Your task to perform on an android device: open app "Instagram" (install if not already installed) and go to login screen Image 0: 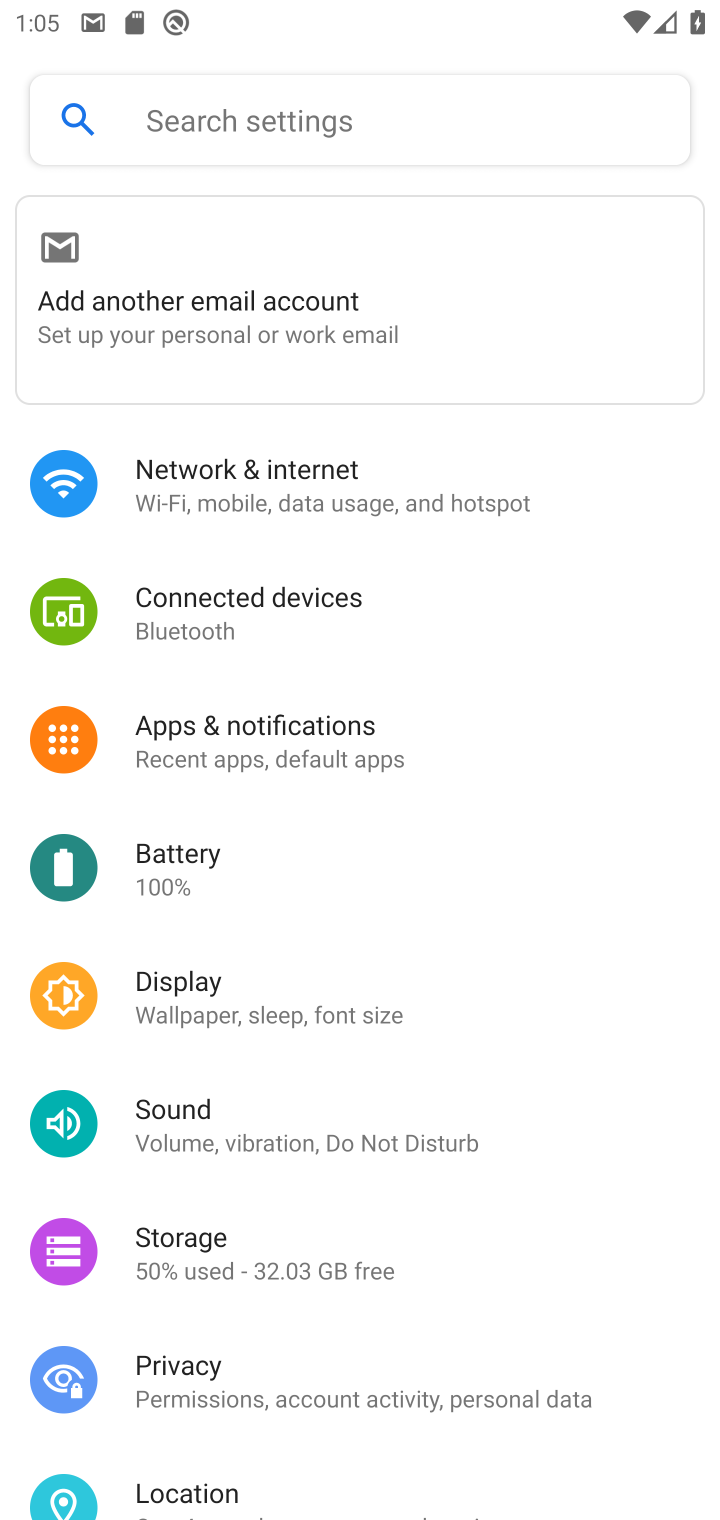
Step 0: press home button
Your task to perform on an android device: open app "Instagram" (install if not already installed) and go to login screen Image 1: 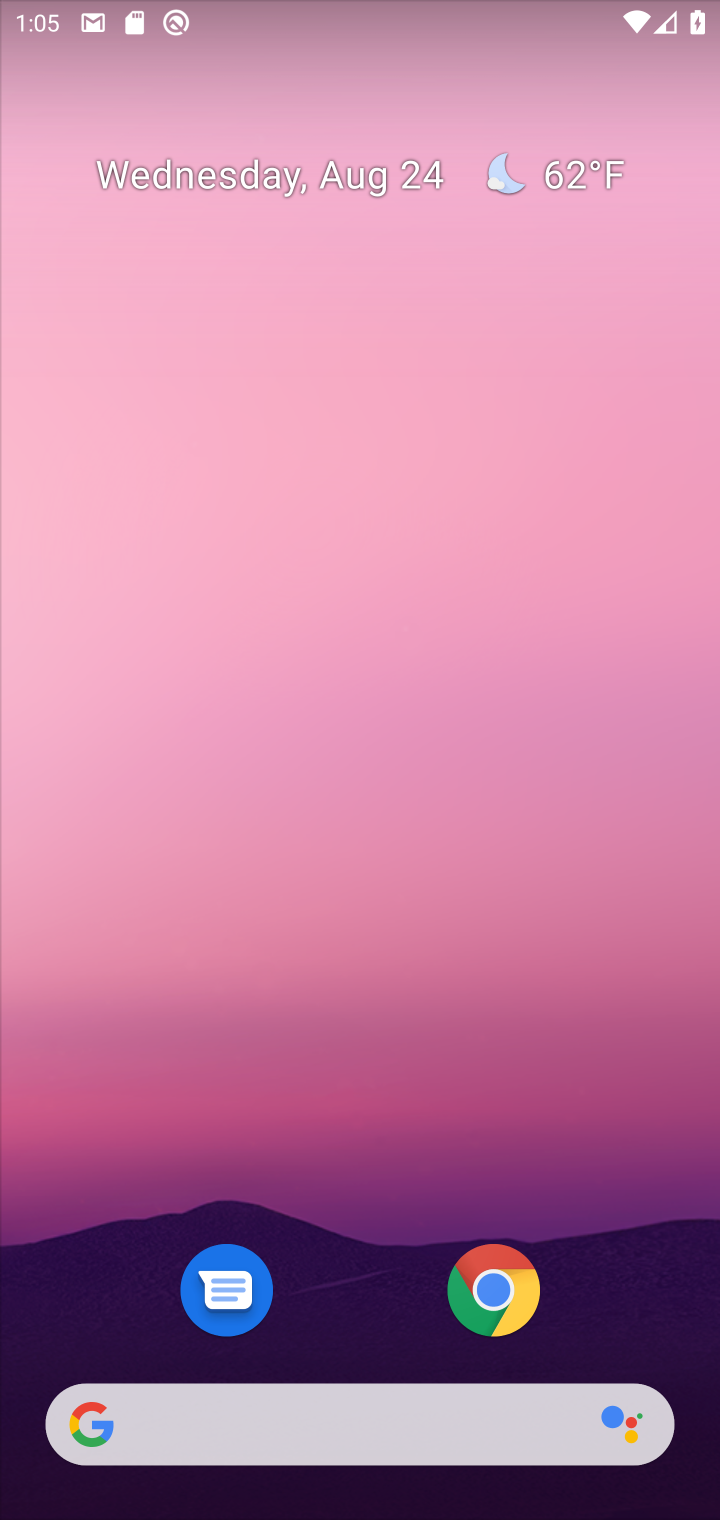
Step 1: click (395, 147)
Your task to perform on an android device: open app "Instagram" (install if not already installed) and go to login screen Image 2: 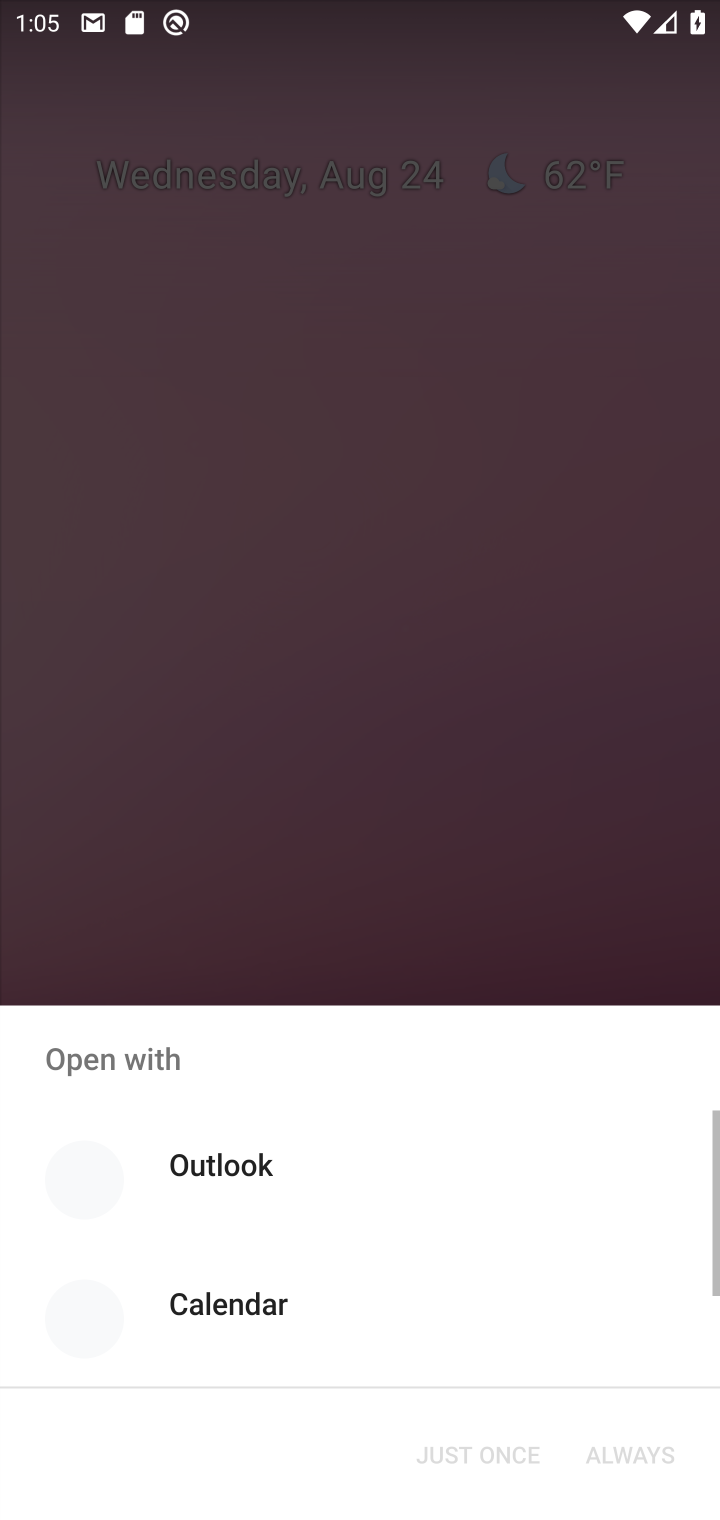
Step 2: drag from (368, 1327) to (388, 206)
Your task to perform on an android device: open app "Instagram" (install if not already installed) and go to login screen Image 3: 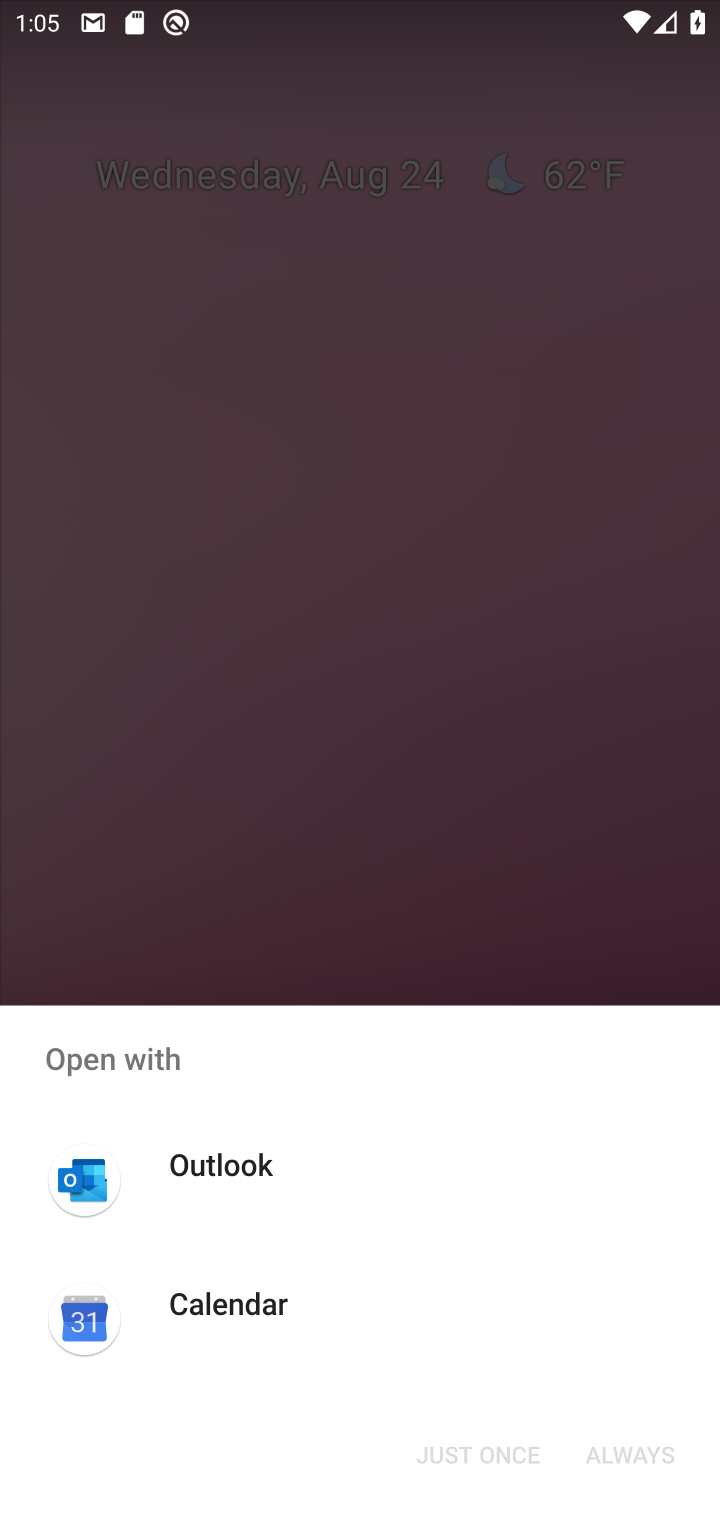
Step 3: click (335, 278)
Your task to perform on an android device: open app "Instagram" (install if not already installed) and go to login screen Image 4: 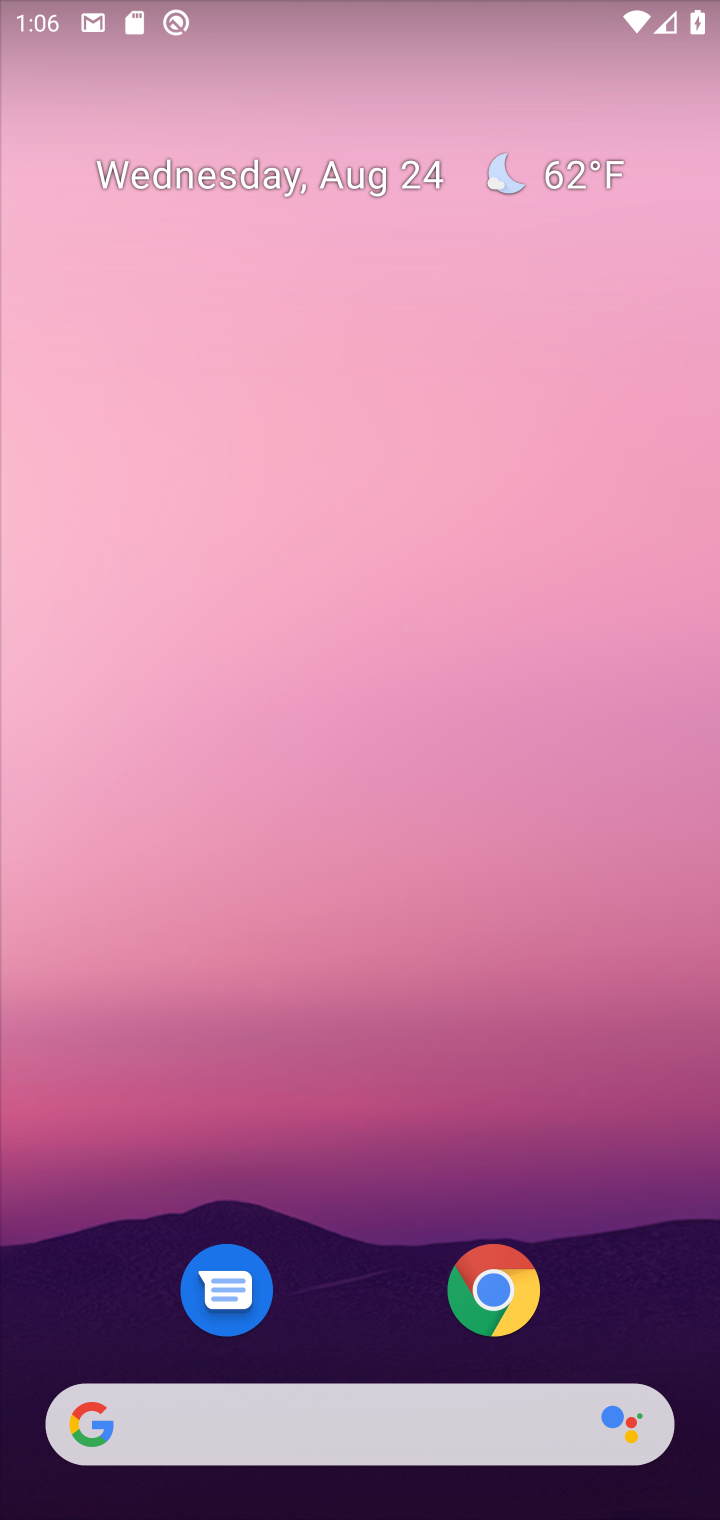
Step 4: drag from (348, 1347) to (365, 340)
Your task to perform on an android device: open app "Instagram" (install if not already installed) and go to login screen Image 5: 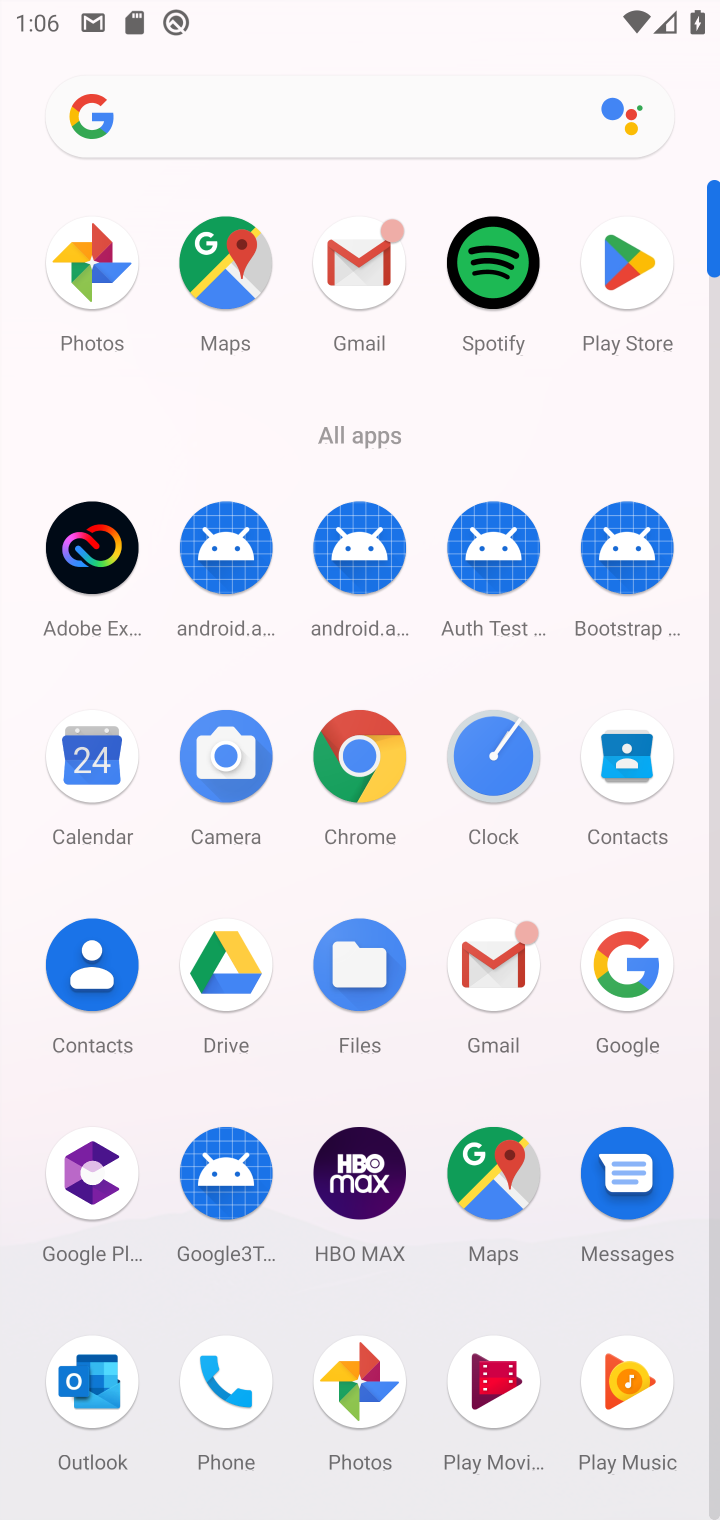
Step 5: click (619, 251)
Your task to perform on an android device: open app "Instagram" (install if not already installed) and go to login screen Image 6: 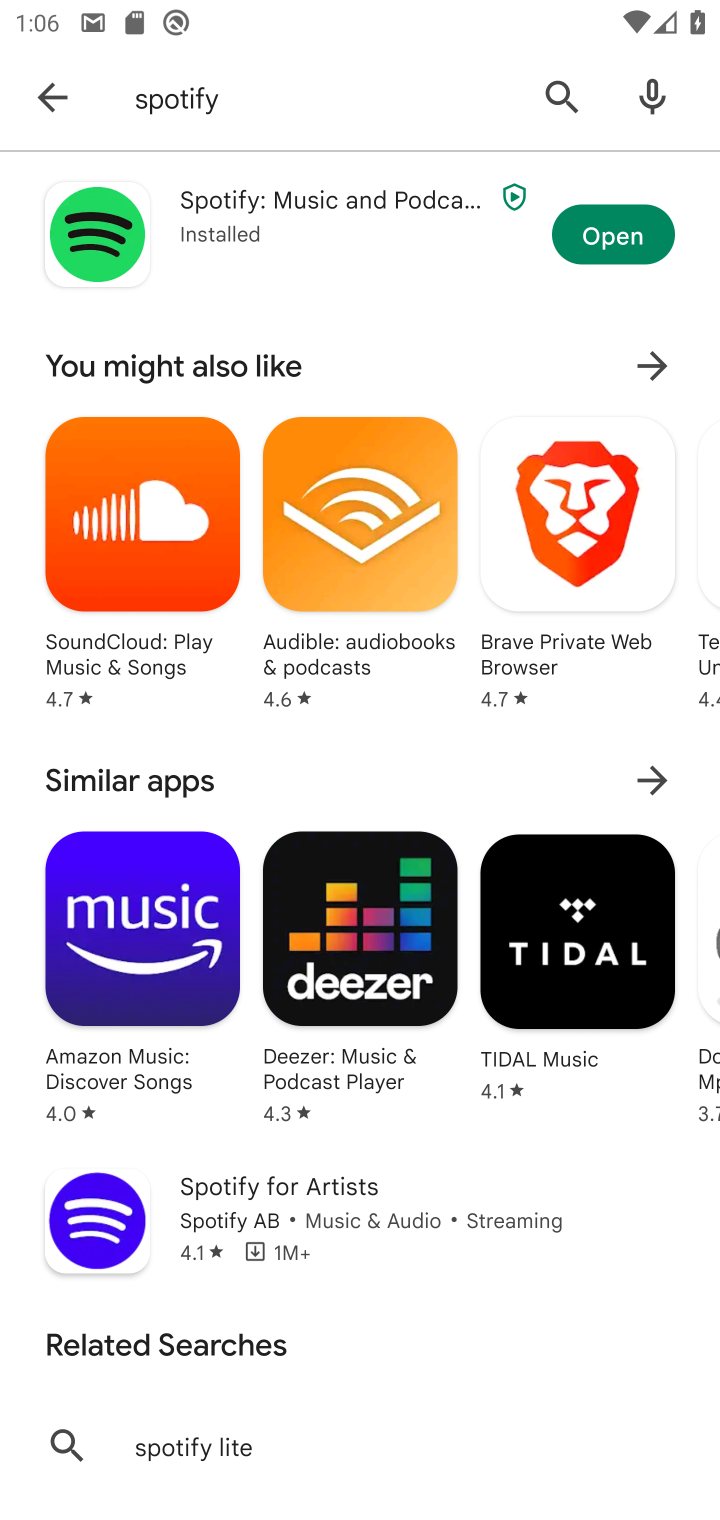
Step 6: click (69, 132)
Your task to perform on an android device: open app "Instagram" (install if not already installed) and go to login screen Image 7: 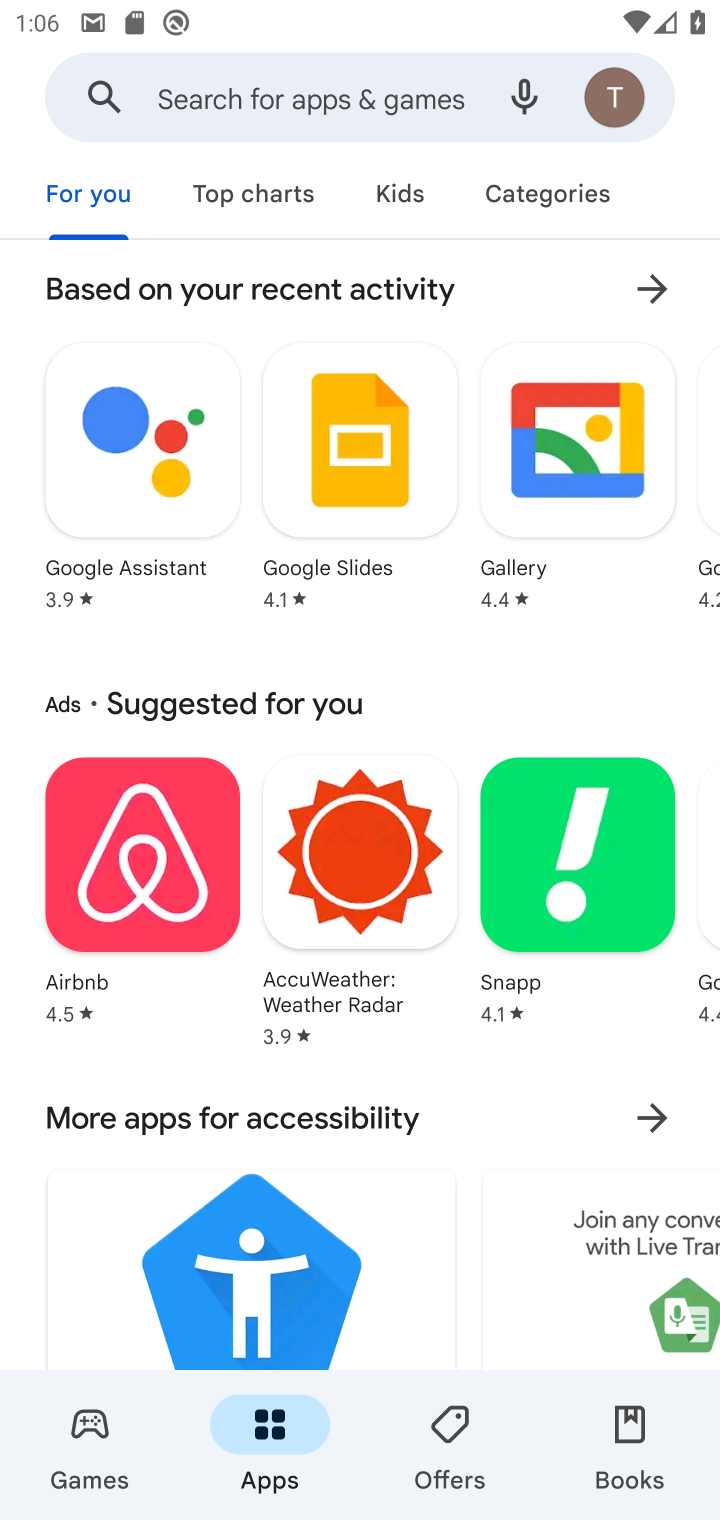
Step 7: click (300, 95)
Your task to perform on an android device: open app "Instagram" (install if not already installed) and go to login screen Image 8: 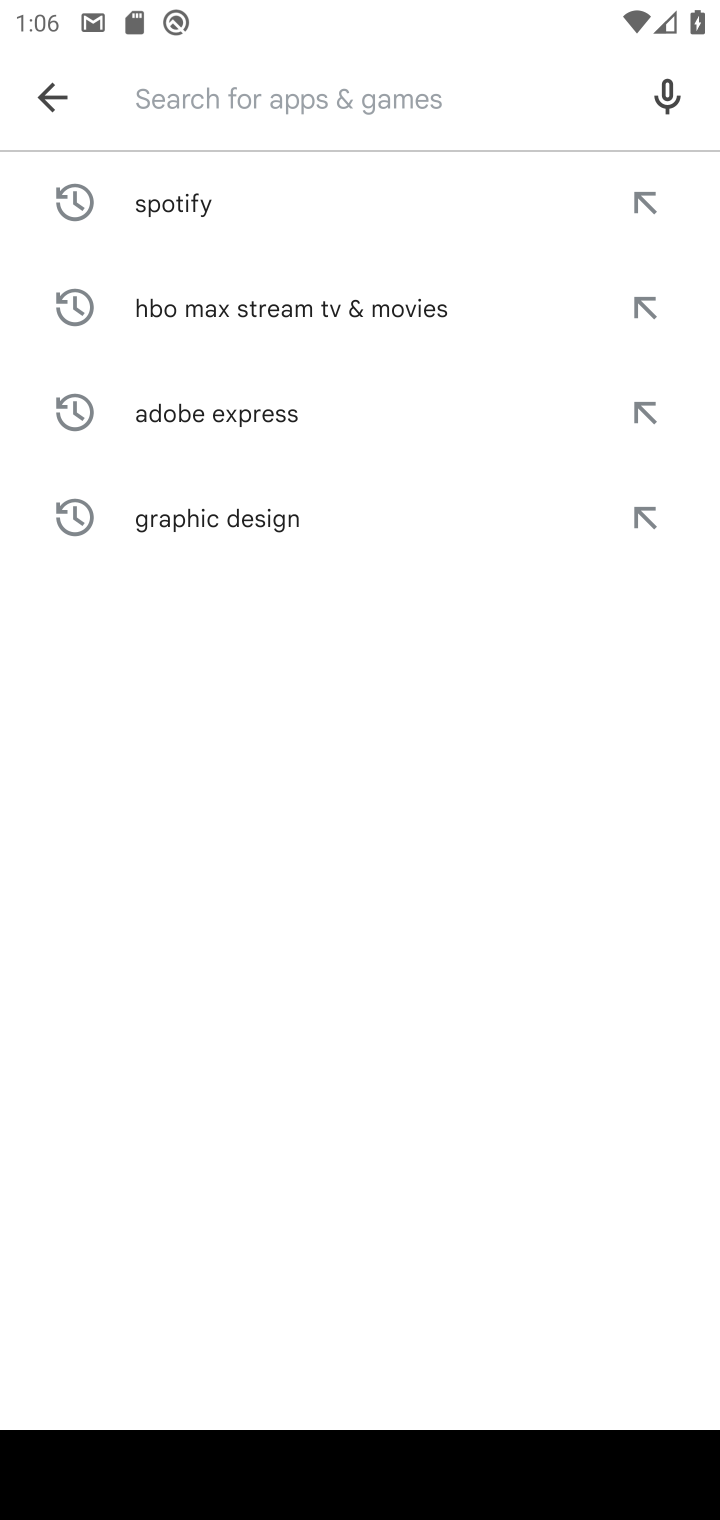
Step 8: type "Instagram"
Your task to perform on an android device: open app "Instagram" (install if not already installed) and go to login screen Image 9: 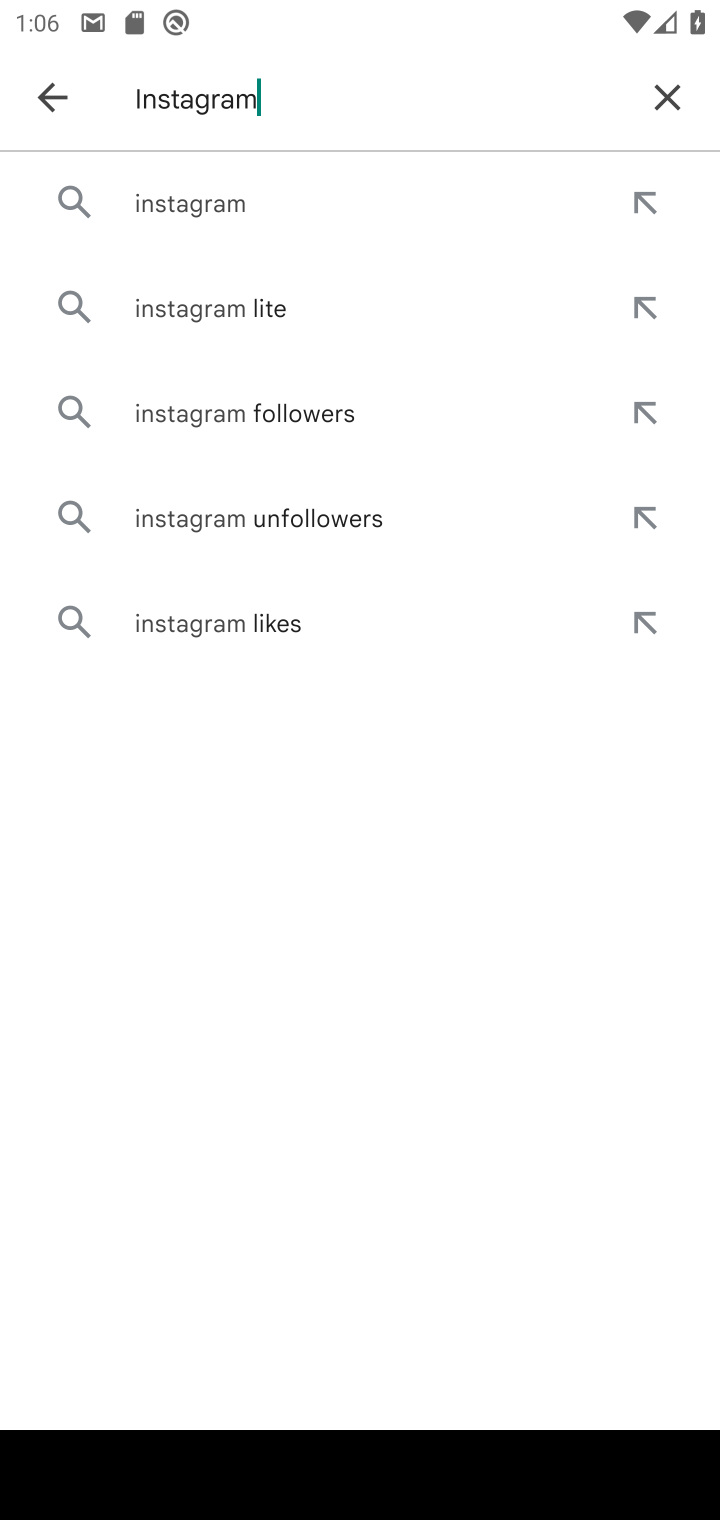
Step 9: click (192, 197)
Your task to perform on an android device: open app "Instagram" (install if not already installed) and go to login screen Image 10: 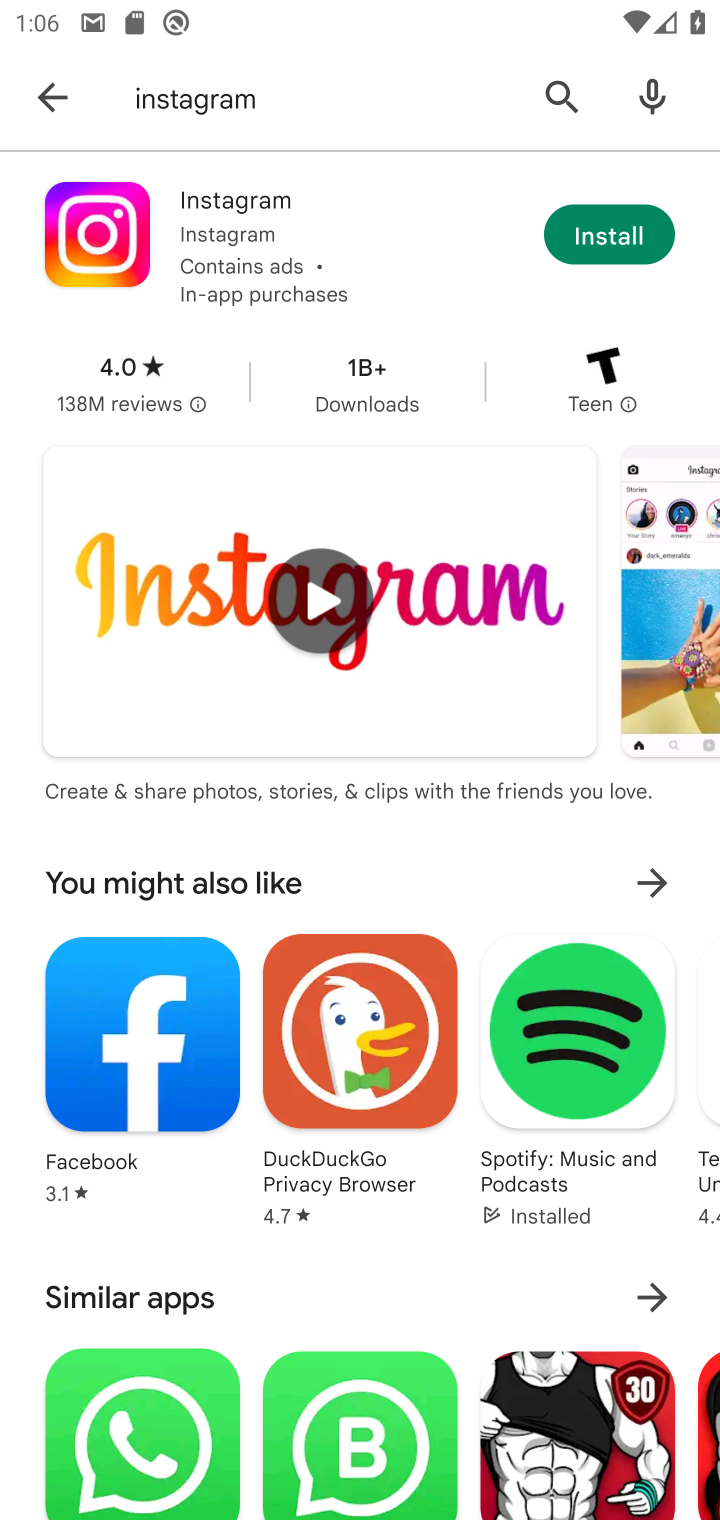
Step 10: click (611, 244)
Your task to perform on an android device: open app "Instagram" (install if not already installed) and go to login screen Image 11: 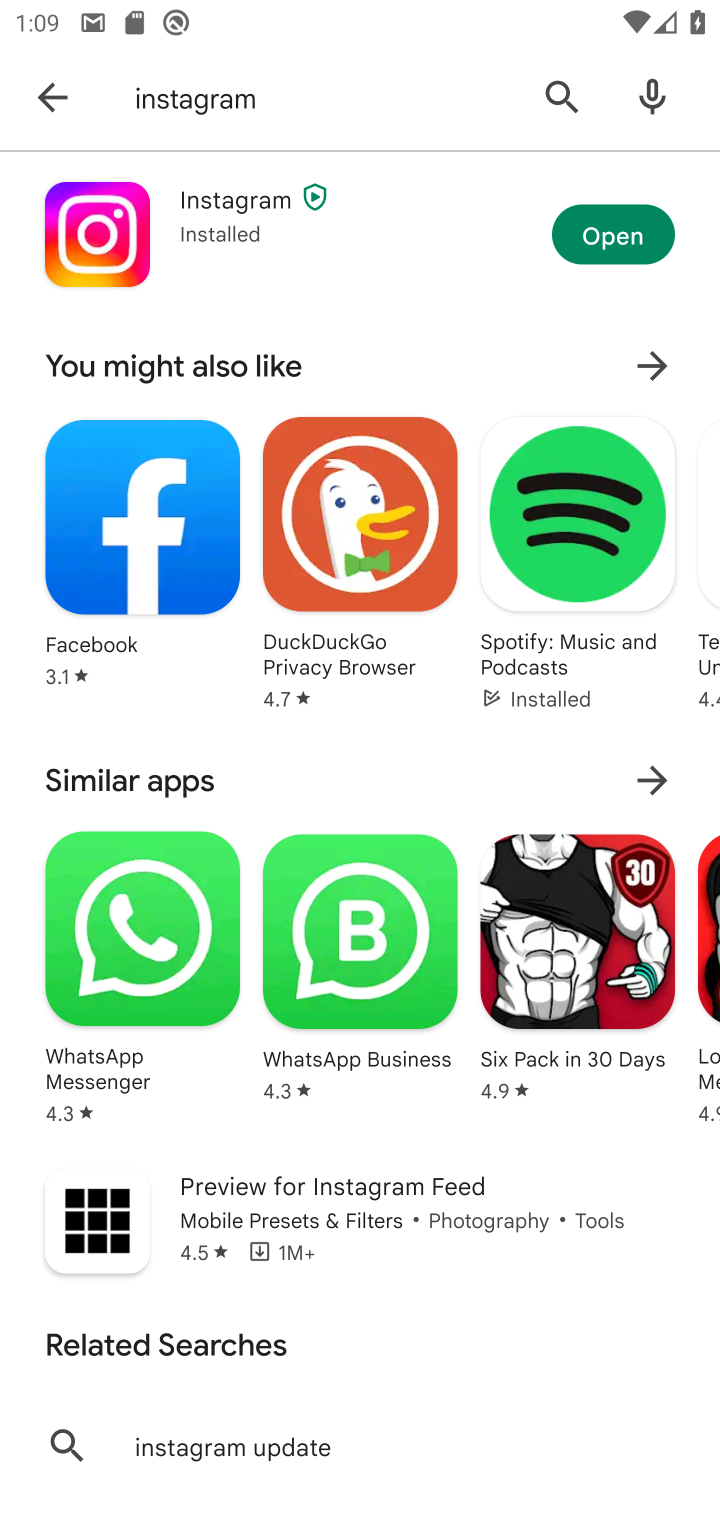
Step 11: click (611, 244)
Your task to perform on an android device: open app "Instagram" (install if not already installed) and go to login screen Image 12: 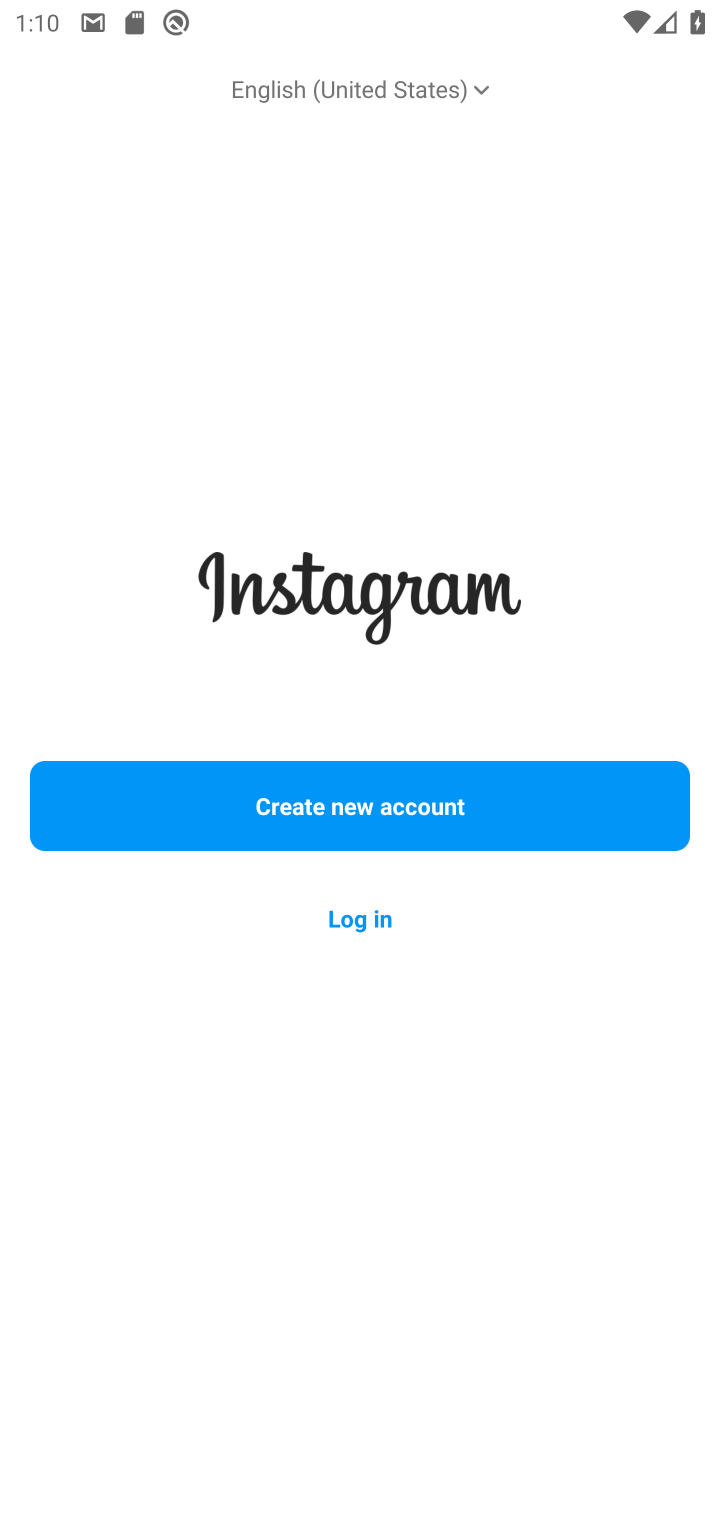
Step 12: task complete